Your task to perform on an android device: Search for Italian restaurants on Maps Image 0: 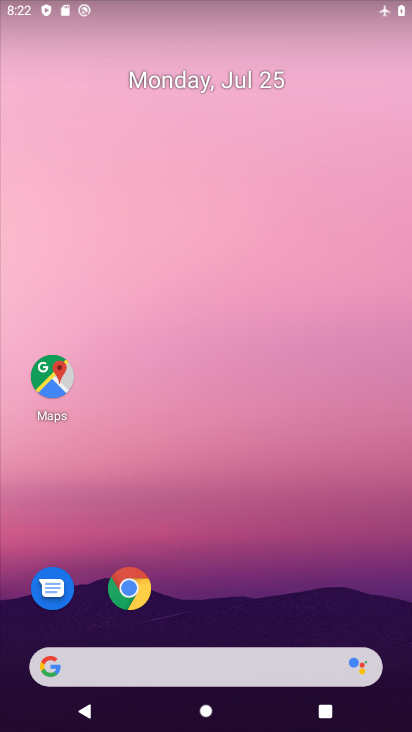
Step 0: drag from (199, 637) to (196, 288)
Your task to perform on an android device: Search for Italian restaurants on Maps Image 1: 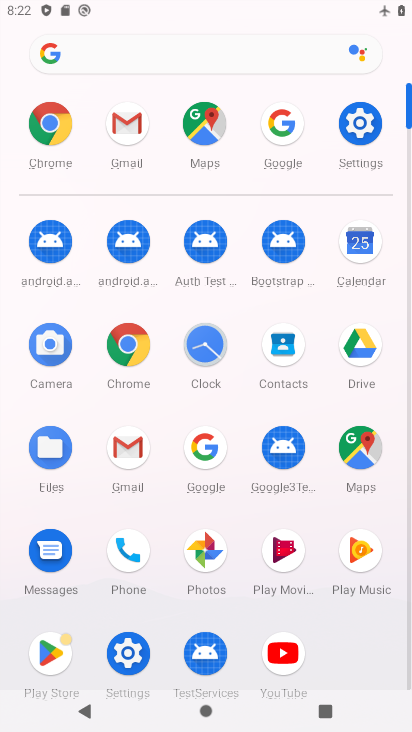
Step 1: click (360, 461)
Your task to perform on an android device: Search for Italian restaurants on Maps Image 2: 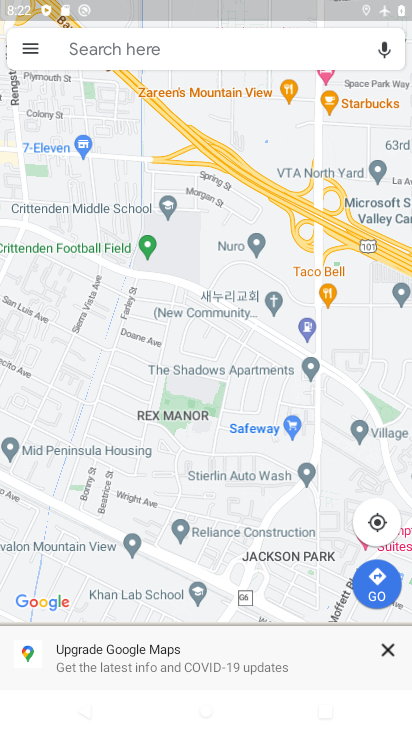
Step 2: click (116, 59)
Your task to perform on an android device: Search for Italian restaurants on Maps Image 3: 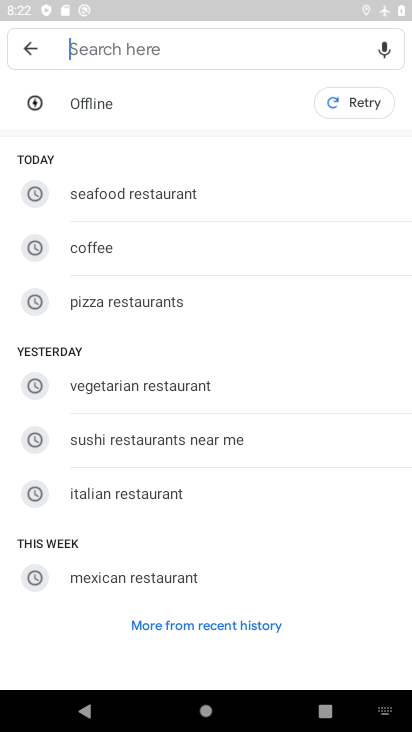
Step 3: click (128, 487)
Your task to perform on an android device: Search for Italian restaurants on Maps Image 4: 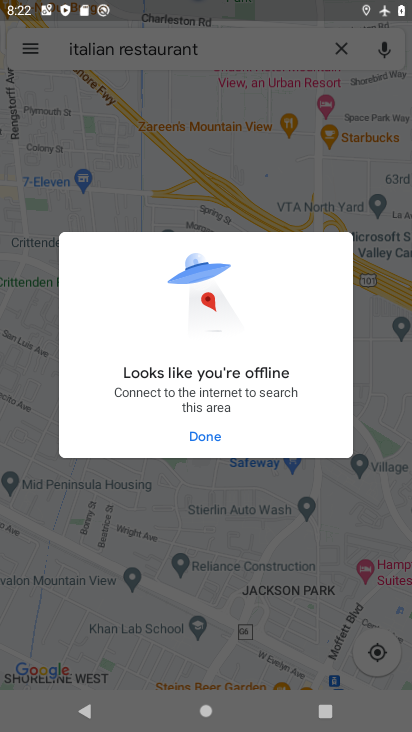
Step 4: task complete